Your task to perform on an android device: see creations saved in the google photos Image 0: 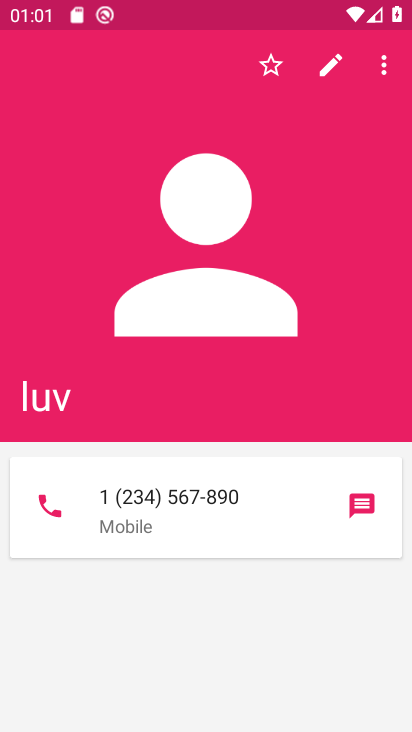
Step 0: press home button
Your task to perform on an android device: see creations saved in the google photos Image 1: 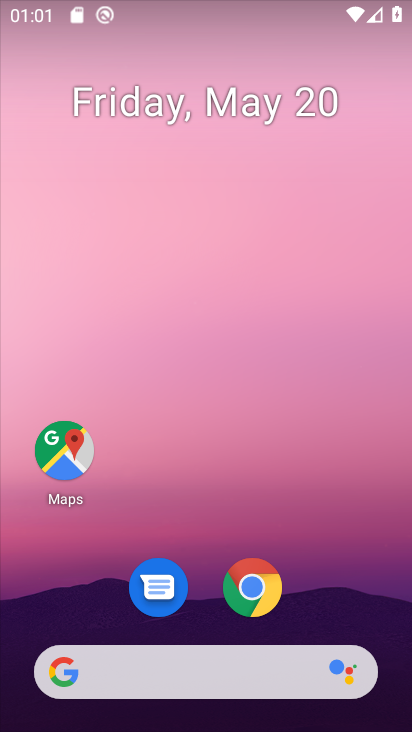
Step 1: drag from (373, 582) to (381, 289)
Your task to perform on an android device: see creations saved in the google photos Image 2: 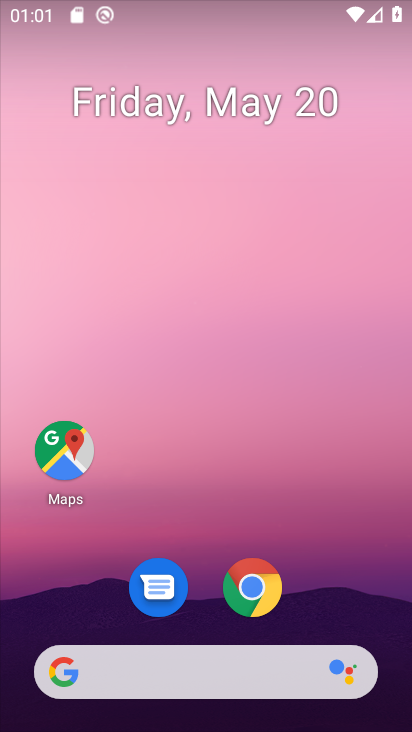
Step 2: drag from (376, 622) to (358, 199)
Your task to perform on an android device: see creations saved in the google photos Image 3: 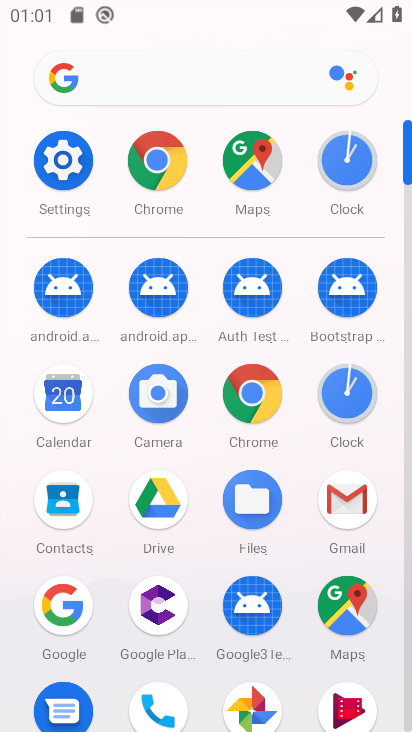
Step 3: drag from (390, 650) to (389, 460)
Your task to perform on an android device: see creations saved in the google photos Image 4: 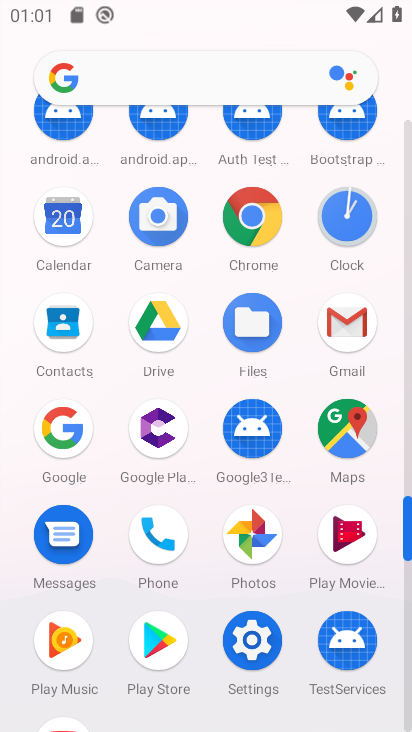
Step 4: drag from (384, 604) to (386, 416)
Your task to perform on an android device: see creations saved in the google photos Image 5: 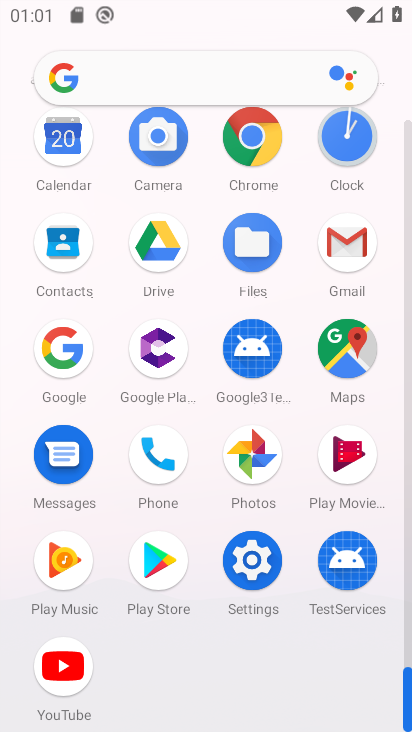
Step 5: click (265, 445)
Your task to perform on an android device: see creations saved in the google photos Image 6: 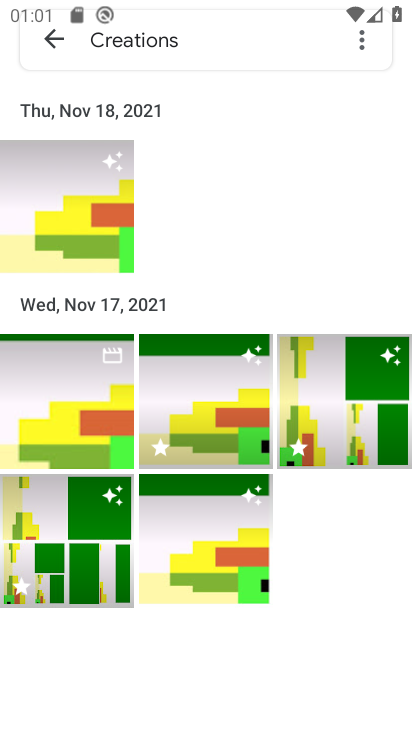
Step 6: task complete